Your task to perform on an android device: Add "sony triple a" to the cart on ebay Image 0: 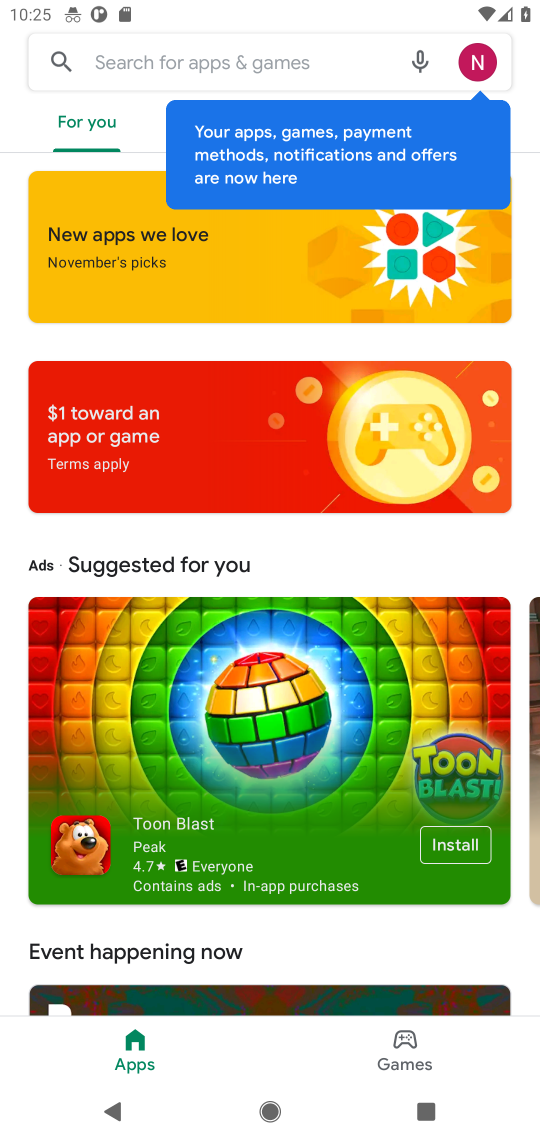
Step 0: press home button
Your task to perform on an android device: Add "sony triple a" to the cart on ebay Image 1: 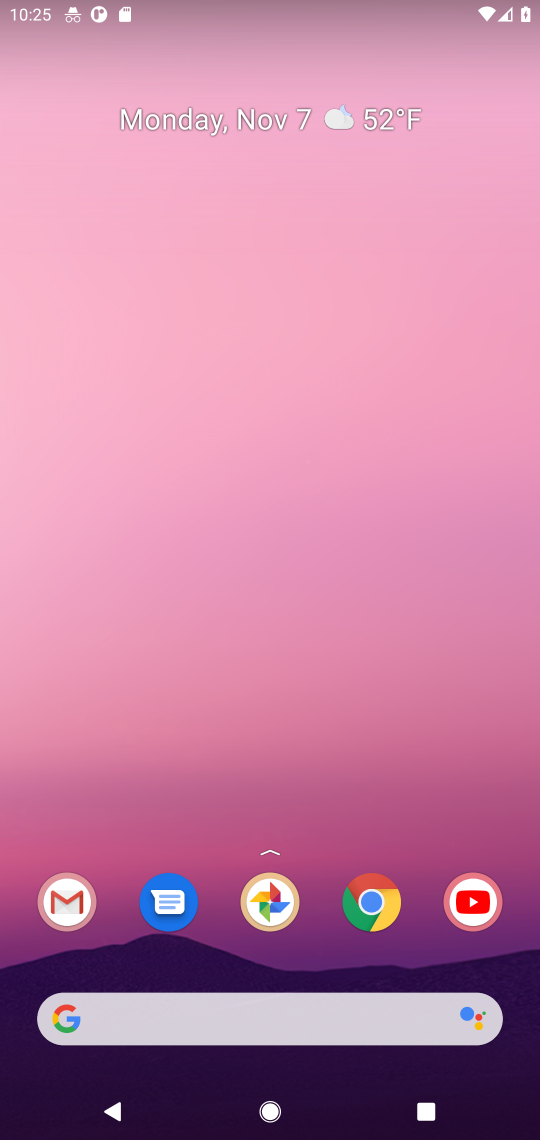
Step 1: click (392, 919)
Your task to perform on an android device: Add "sony triple a" to the cart on ebay Image 2: 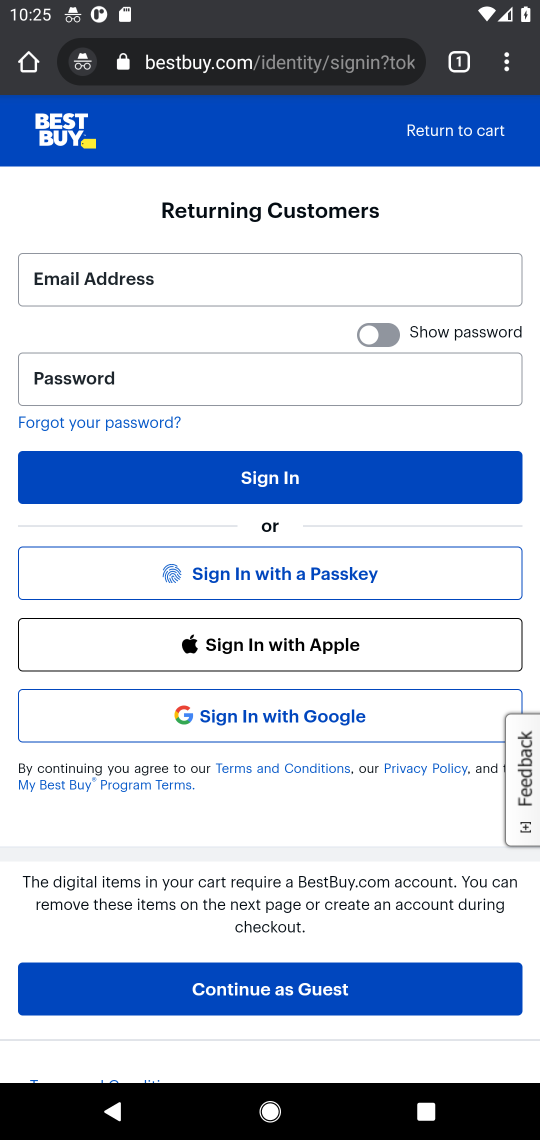
Step 2: click (242, 68)
Your task to perform on an android device: Add "sony triple a" to the cart on ebay Image 3: 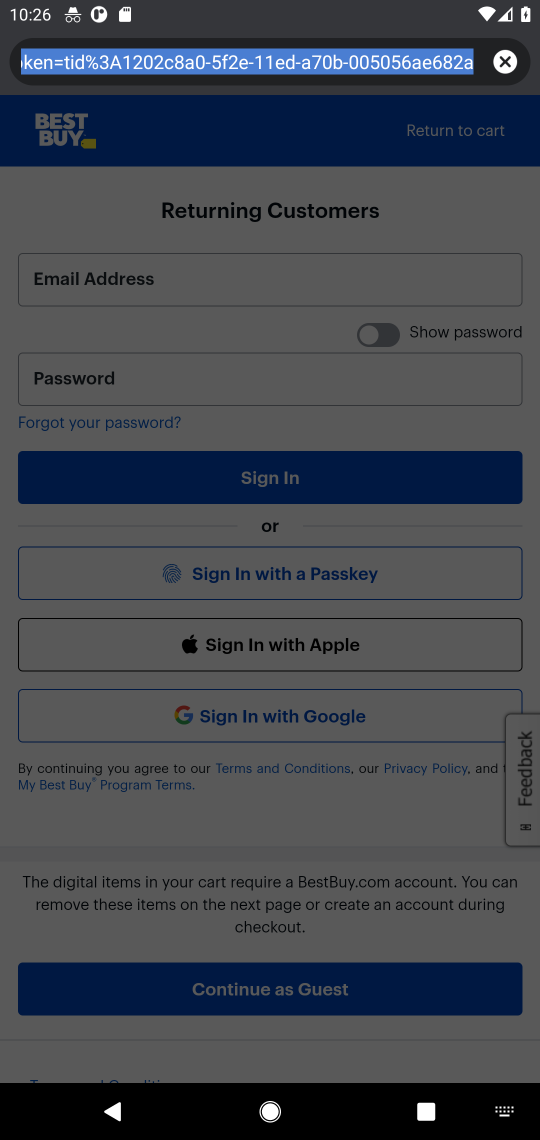
Step 3: type "ebay.com"
Your task to perform on an android device: Add "sony triple a" to the cart on ebay Image 4: 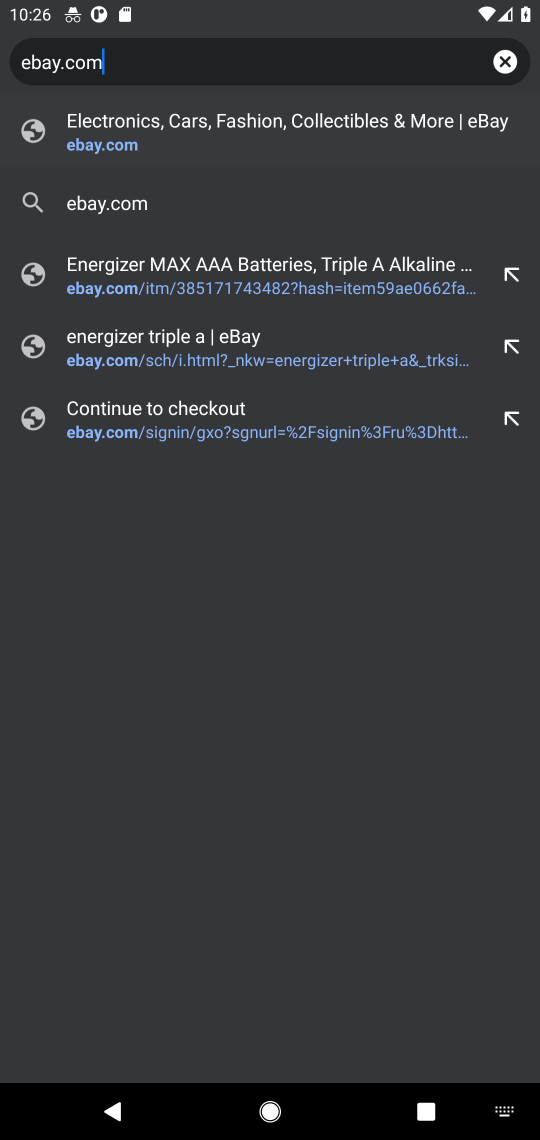
Step 4: click (92, 153)
Your task to perform on an android device: Add "sony triple a" to the cart on ebay Image 5: 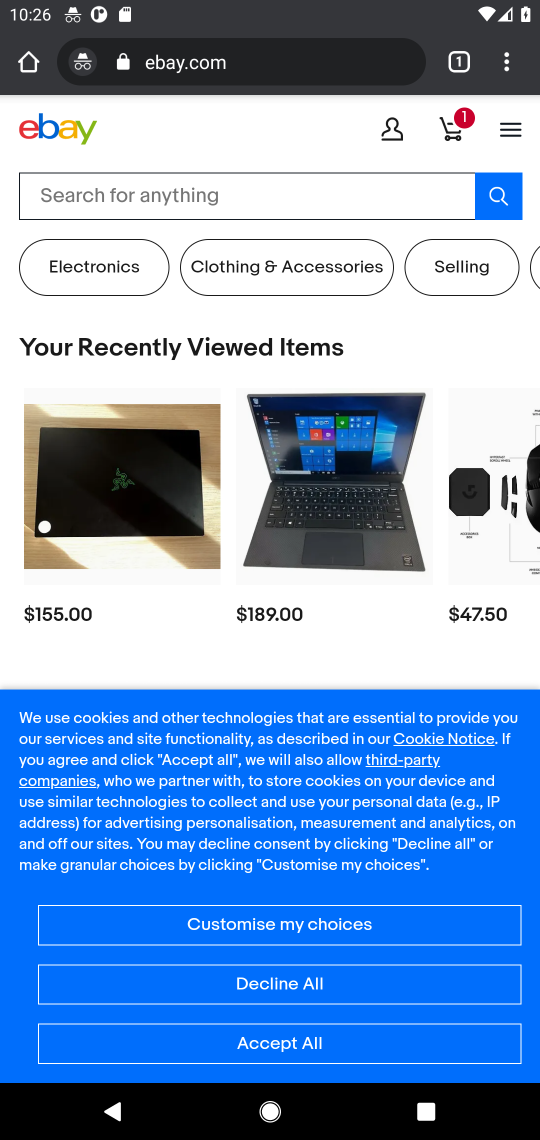
Step 5: click (160, 197)
Your task to perform on an android device: Add "sony triple a" to the cart on ebay Image 6: 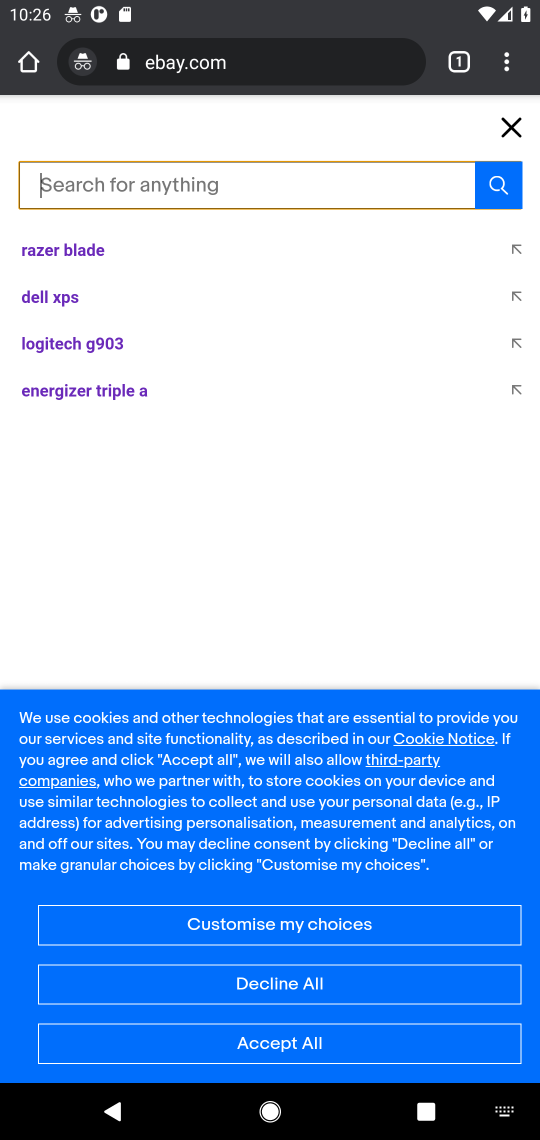
Step 6: type "sony triple a"
Your task to perform on an android device: Add "sony triple a" to the cart on ebay Image 7: 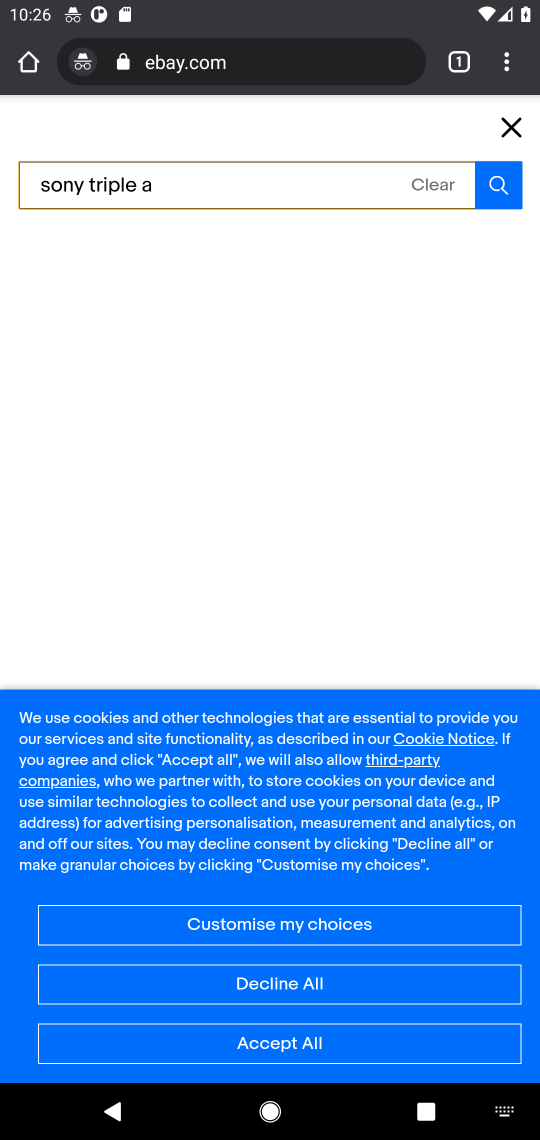
Step 7: click (515, 191)
Your task to perform on an android device: Add "sony triple a" to the cart on ebay Image 8: 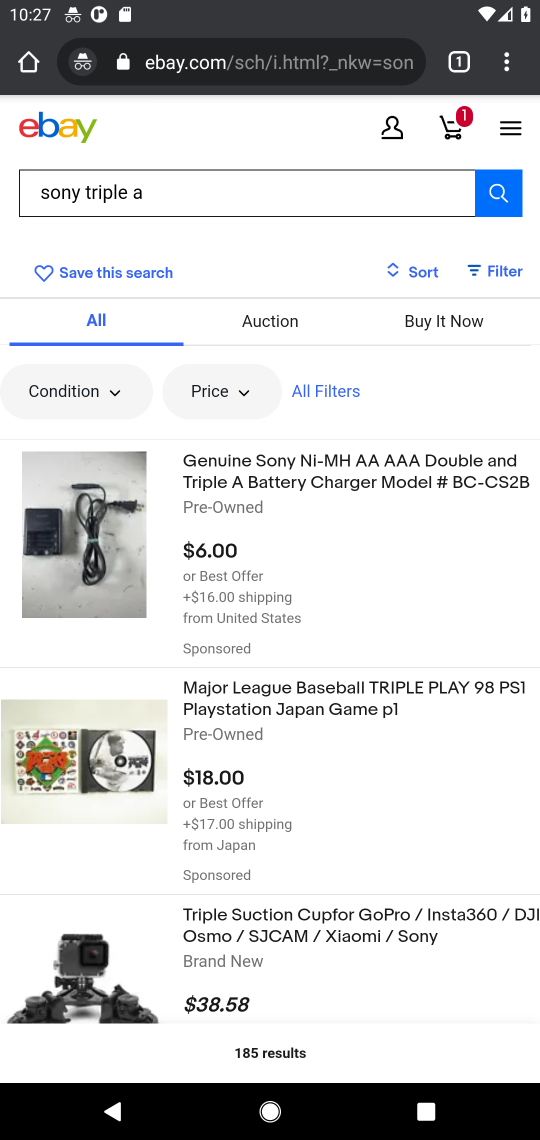
Step 8: click (64, 510)
Your task to perform on an android device: Add "sony triple a" to the cart on ebay Image 9: 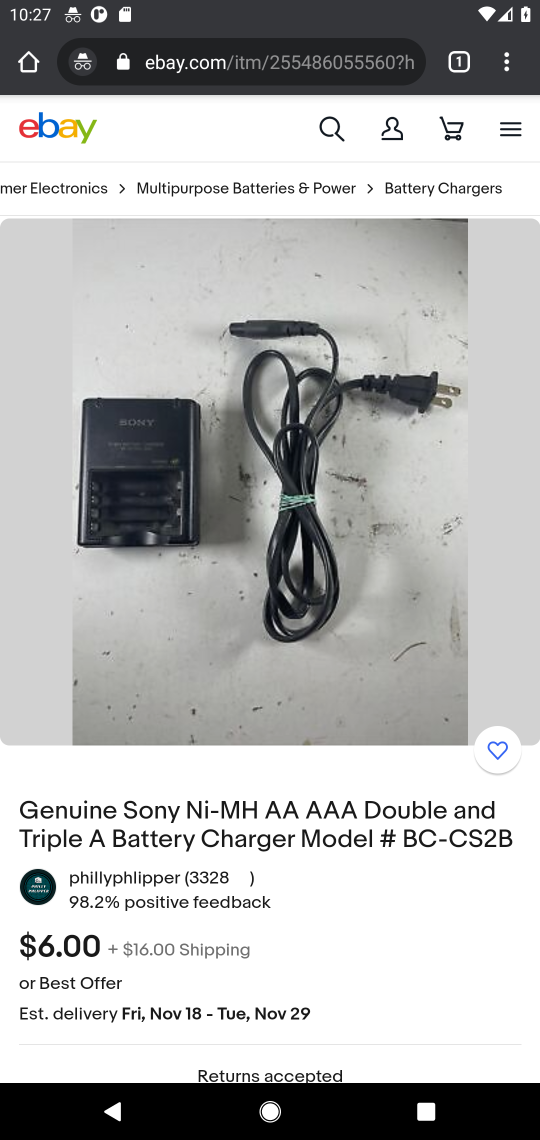
Step 9: drag from (273, 846) to (239, 293)
Your task to perform on an android device: Add "sony triple a" to the cart on ebay Image 10: 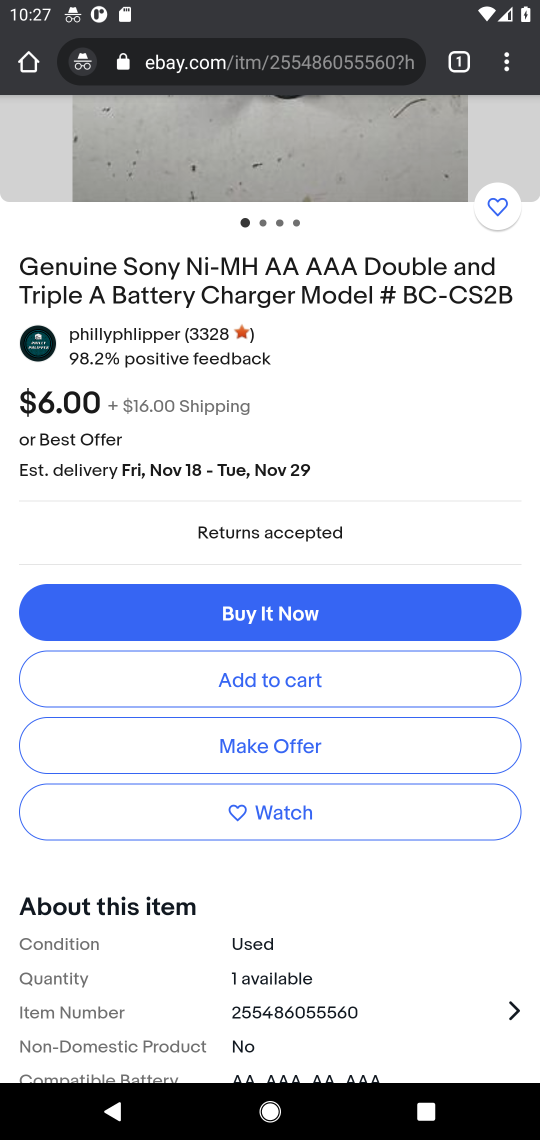
Step 10: click (227, 678)
Your task to perform on an android device: Add "sony triple a" to the cart on ebay Image 11: 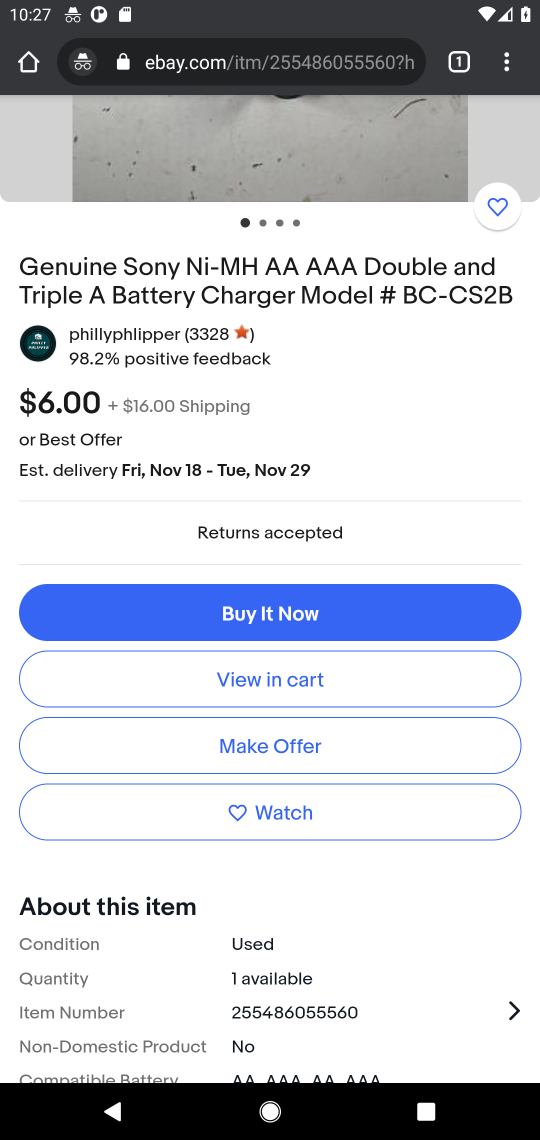
Step 11: task complete